Your task to perform on an android device: Open battery settings Image 0: 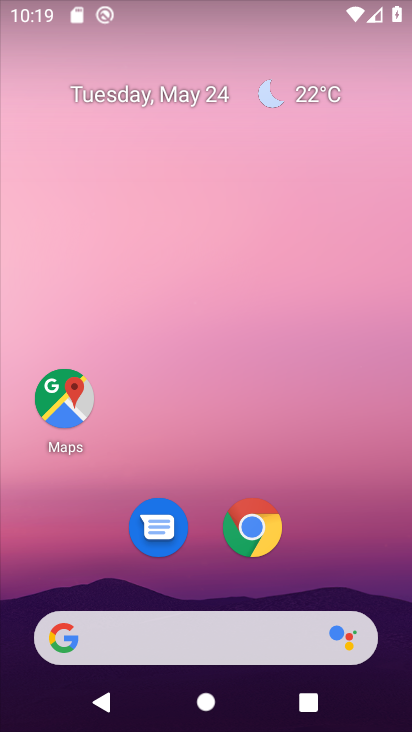
Step 0: press home button
Your task to perform on an android device: Open battery settings Image 1: 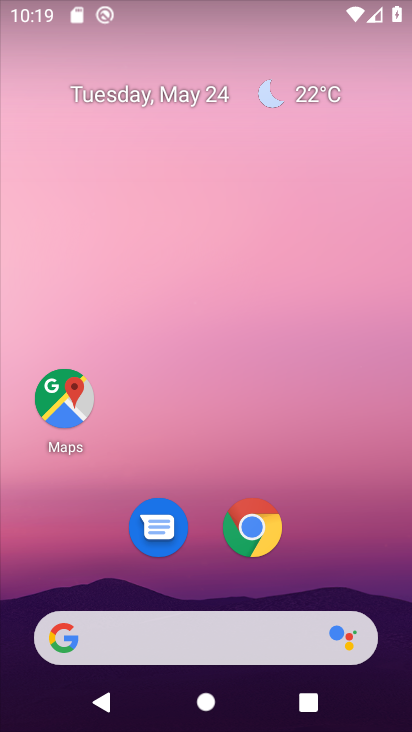
Step 1: drag from (198, 644) to (325, 100)
Your task to perform on an android device: Open battery settings Image 2: 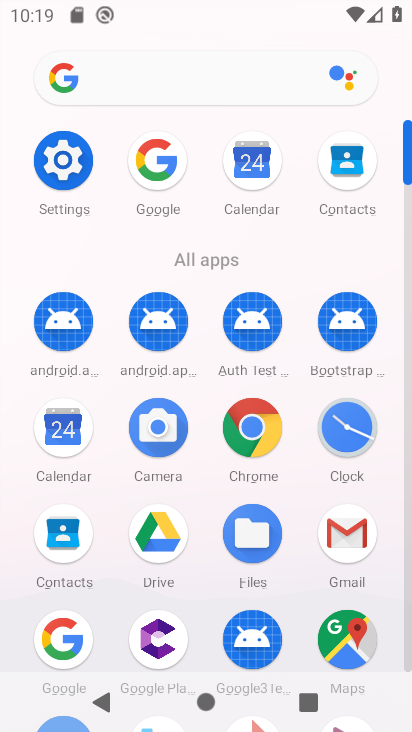
Step 2: click (69, 173)
Your task to perform on an android device: Open battery settings Image 3: 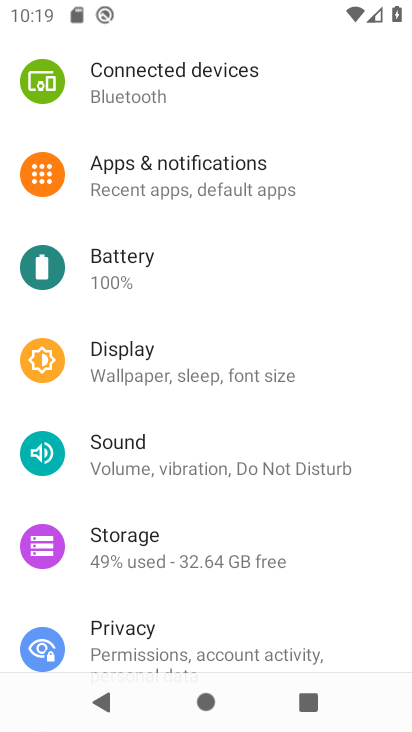
Step 3: click (119, 270)
Your task to perform on an android device: Open battery settings Image 4: 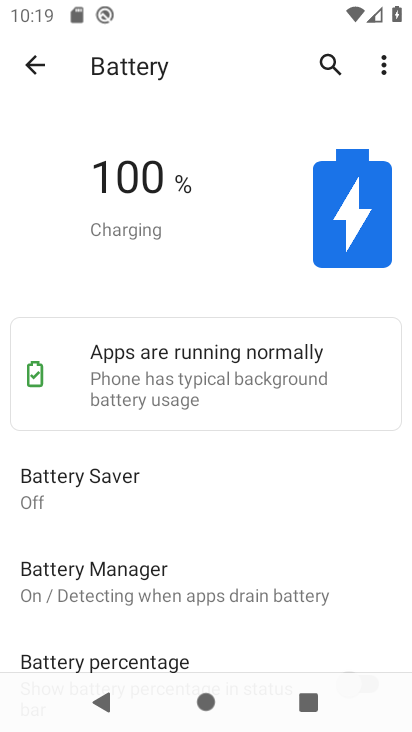
Step 4: task complete